Your task to perform on an android device: Toggle the flashlight Image 0: 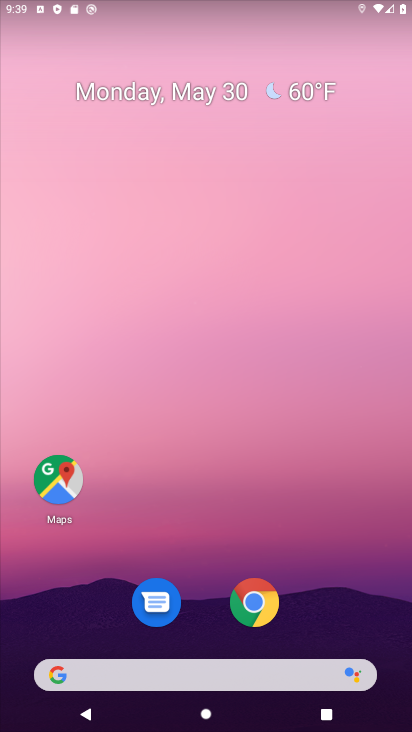
Step 0: drag from (204, 632) to (170, 238)
Your task to perform on an android device: Toggle the flashlight Image 1: 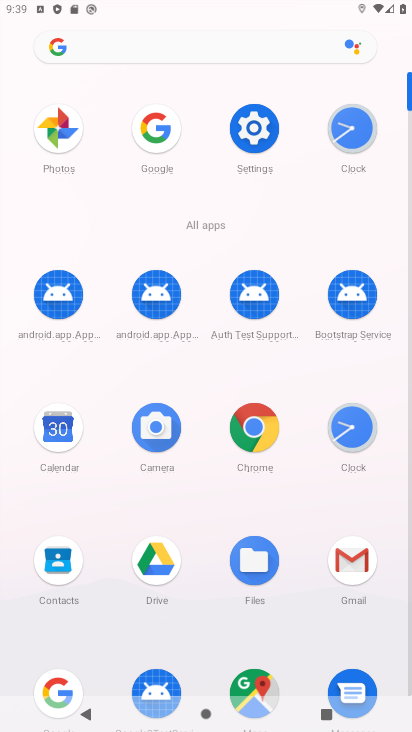
Step 1: click (235, 141)
Your task to perform on an android device: Toggle the flashlight Image 2: 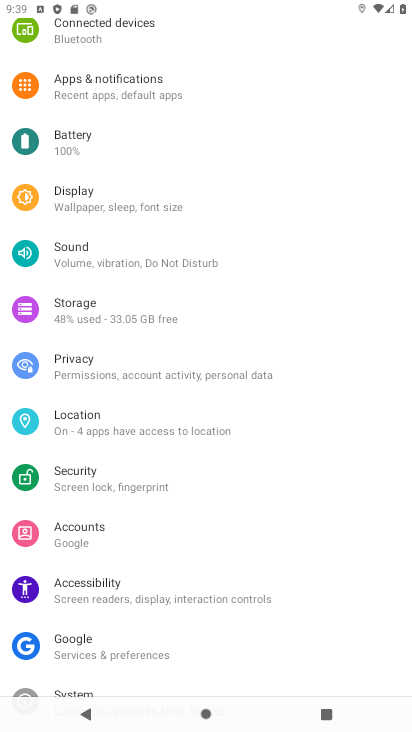
Step 2: task complete